Your task to perform on an android device: turn vacation reply on in the gmail app Image 0: 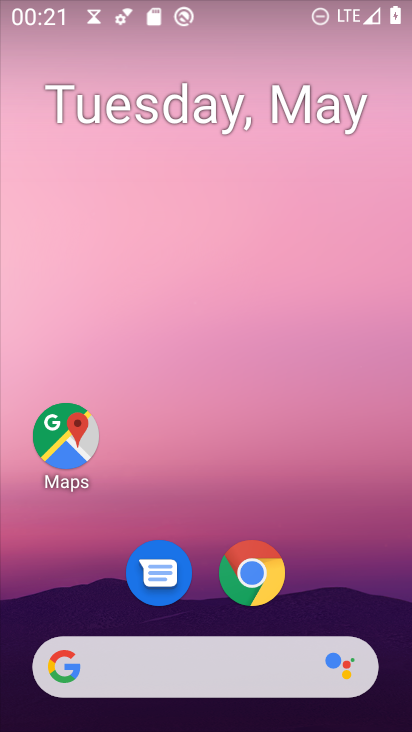
Step 0: drag from (350, 565) to (185, 48)
Your task to perform on an android device: turn vacation reply on in the gmail app Image 1: 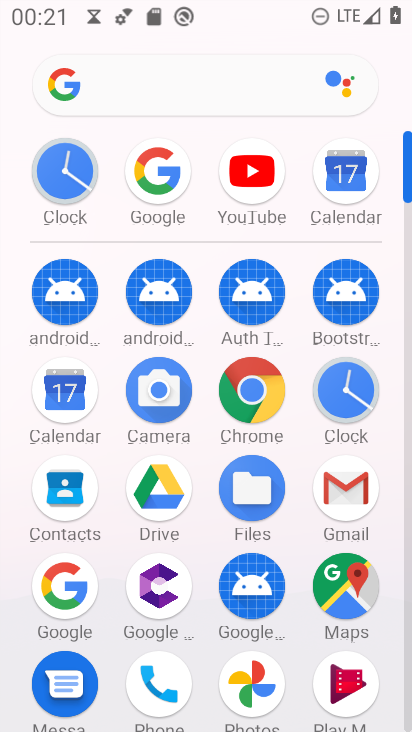
Step 1: click (337, 495)
Your task to perform on an android device: turn vacation reply on in the gmail app Image 2: 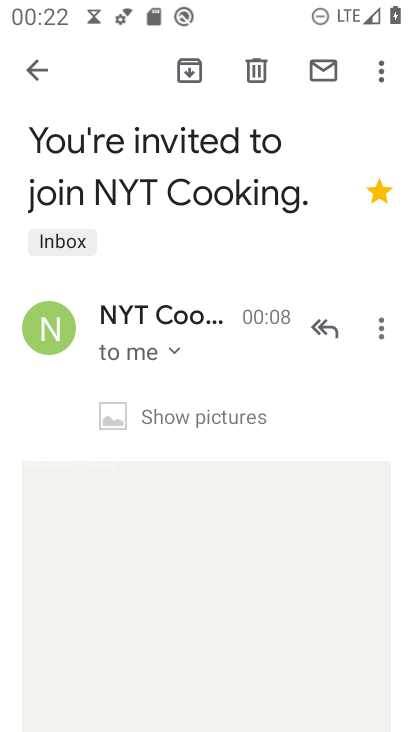
Step 2: click (21, 69)
Your task to perform on an android device: turn vacation reply on in the gmail app Image 3: 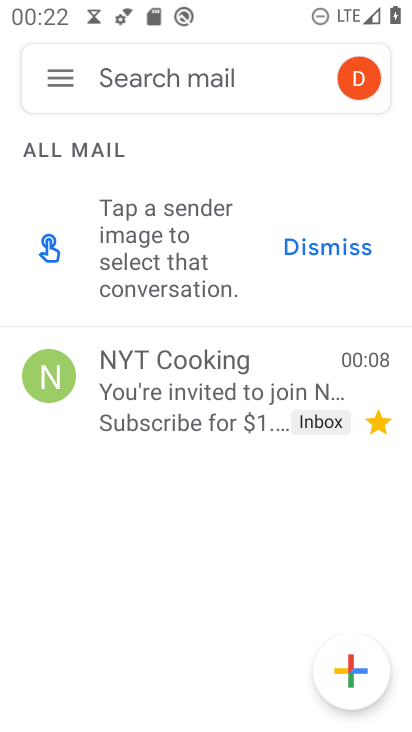
Step 3: click (62, 88)
Your task to perform on an android device: turn vacation reply on in the gmail app Image 4: 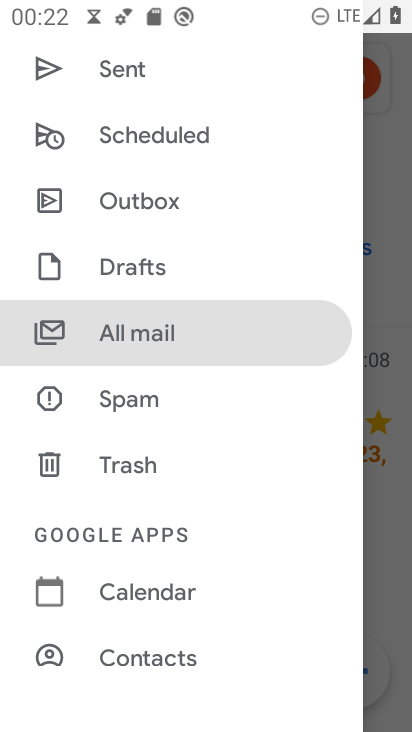
Step 4: drag from (240, 607) to (224, 190)
Your task to perform on an android device: turn vacation reply on in the gmail app Image 5: 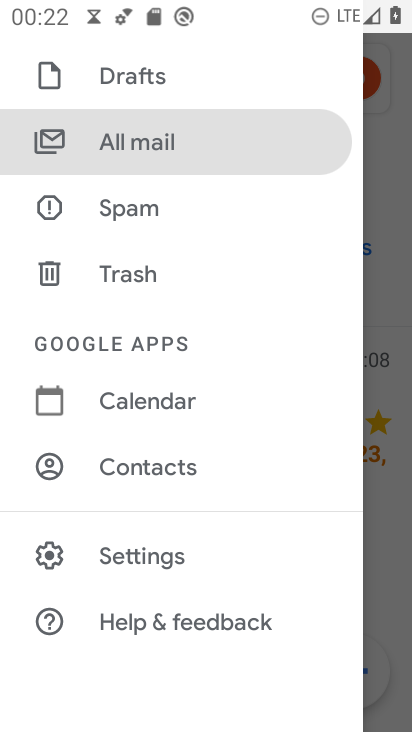
Step 5: click (186, 557)
Your task to perform on an android device: turn vacation reply on in the gmail app Image 6: 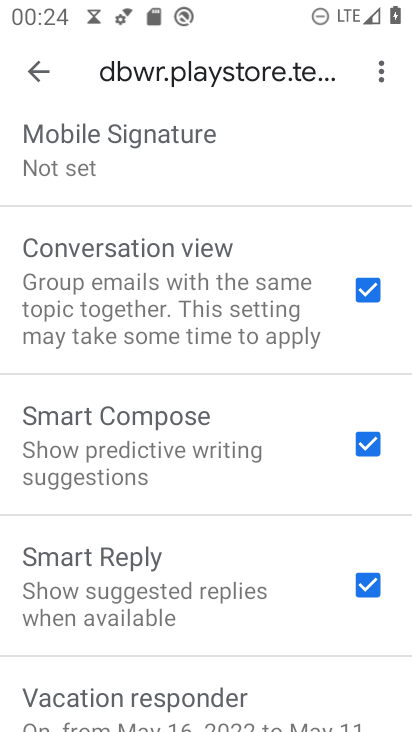
Step 6: drag from (211, 660) to (192, 303)
Your task to perform on an android device: turn vacation reply on in the gmail app Image 7: 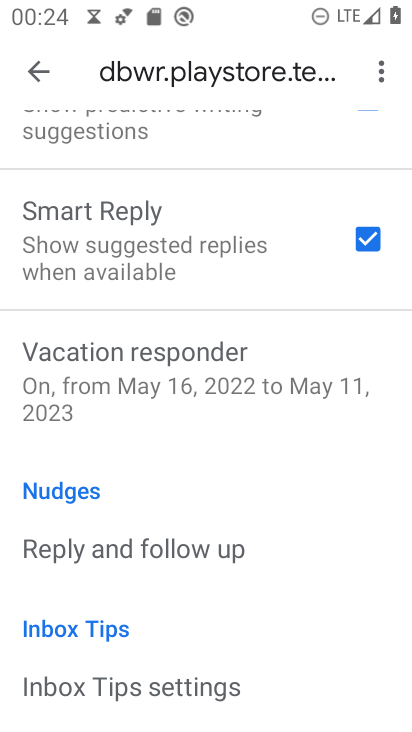
Step 7: click (199, 369)
Your task to perform on an android device: turn vacation reply on in the gmail app Image 8: 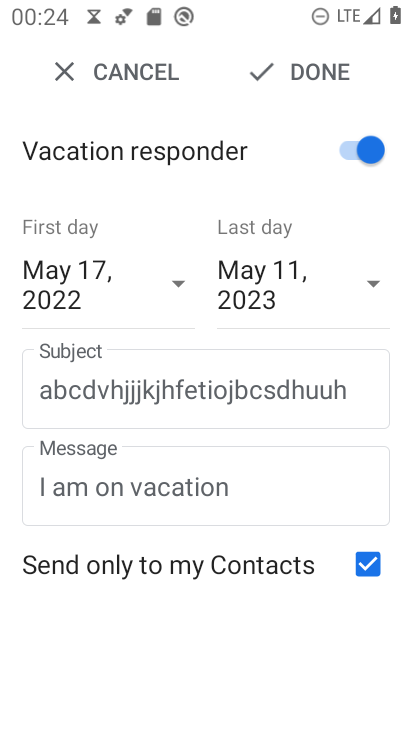
Step 8: click (339, 65)
Your task to perform on an android device: turn vacation reply on in the gmail app Image 9: 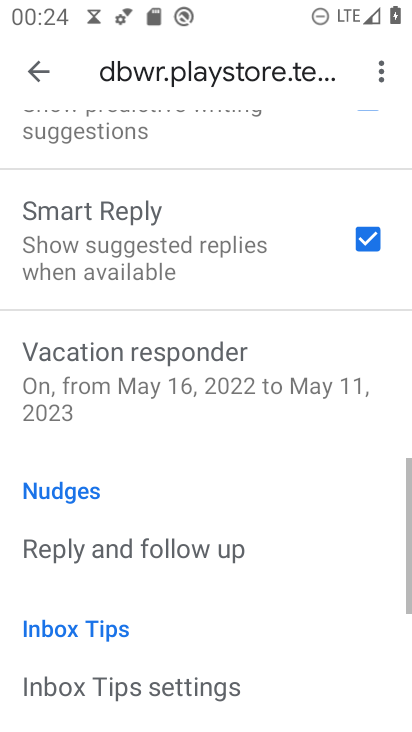
Step 9: task complete